Your task to perform on an android device: Is it going to rain today? Image 0: 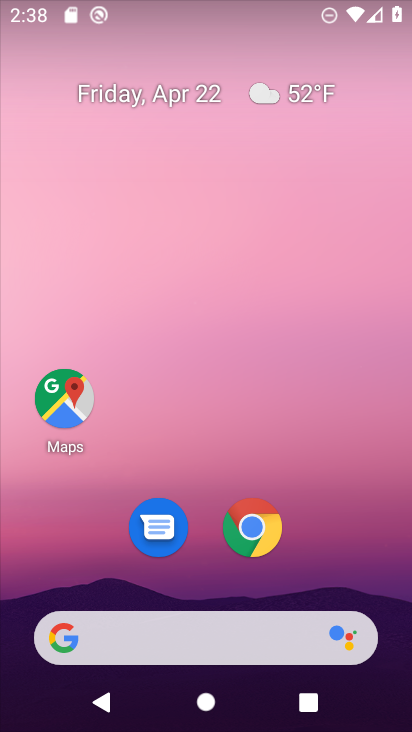
Step 0: click (261, 520)
Your task to perform on an android device: Is it going to rain today? Image 1: 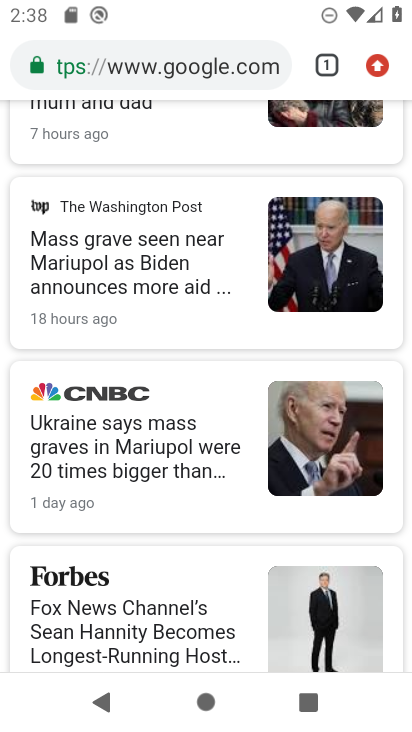
Step 1: click (184, 60)
Your task to perform on an android device: Is it going to rain today? Image 2: 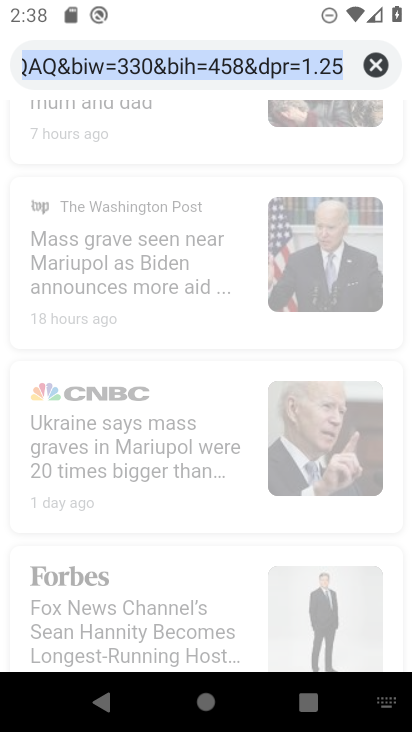
Step 2: click (382, 59)
Your task to perform on an android device: Is it going to rain today? Image 3: 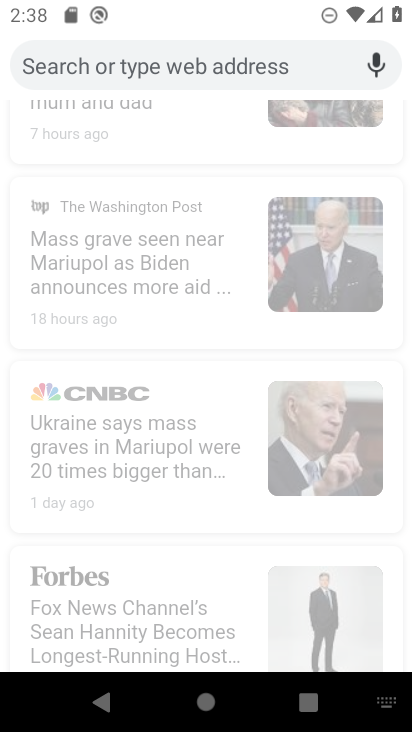
Step 3: type "is it going to rain today?"
Your task to perform on an android device: Is it going to rain today? Image 4: 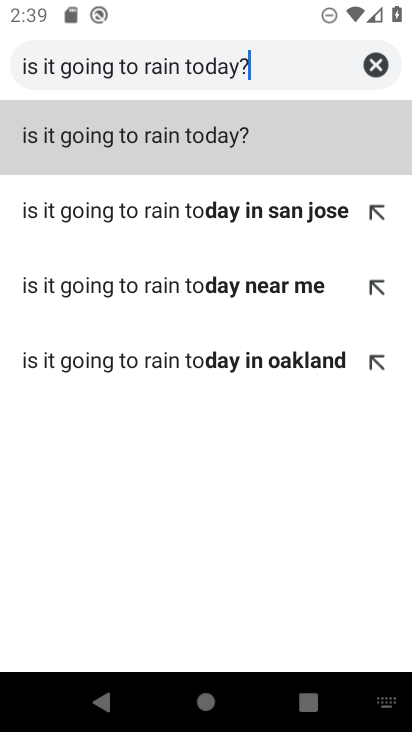
Step 4: click (132, 153)
Your task to perform on an android device: Is it going to rain today? Image 5: 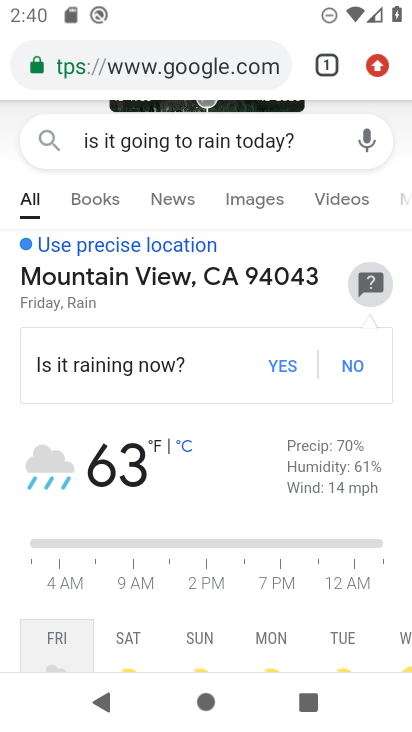
Step 5: task complete